Your task to perform on an android device: Open Chrome and go to settings Image 0: 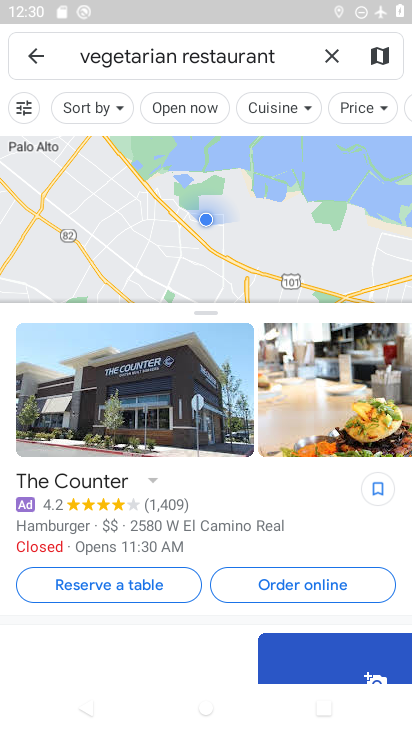
Step 0: press home button
Your task to perform on an android device: Open Chrome and go to settings Image 1: 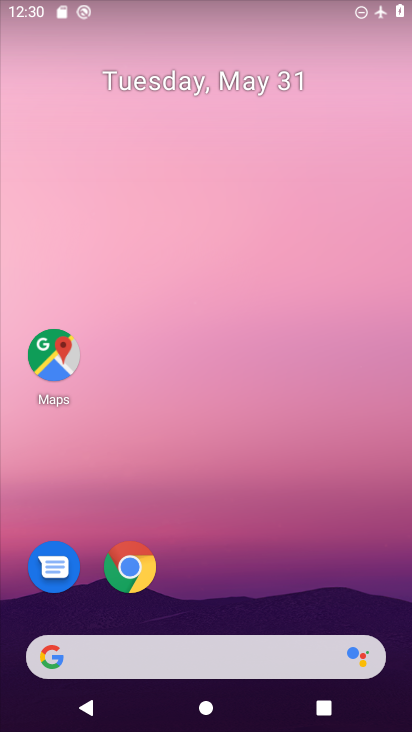
Step 1: click (110, 577)
Your task to perform on an android device: Open Chrome and go to settings Image 2: 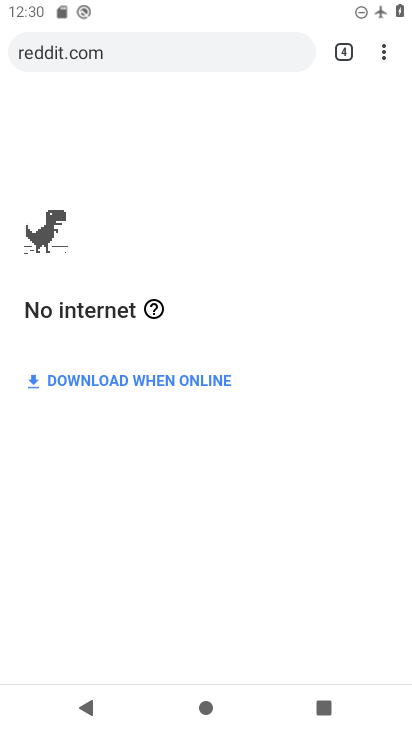
Step 2: click (389, 45)
Your task to perform on an android device: Open Chrome and go to settings Image 3: 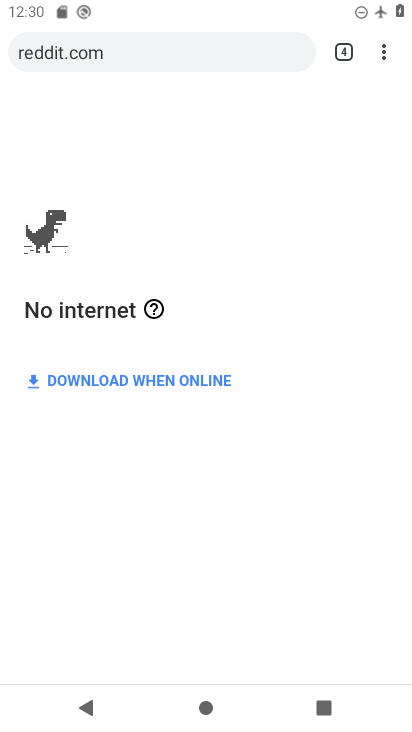
Step 3: click (372, 48)
Your task to perform on an android device: Open Chrome and go to settings Image 4: 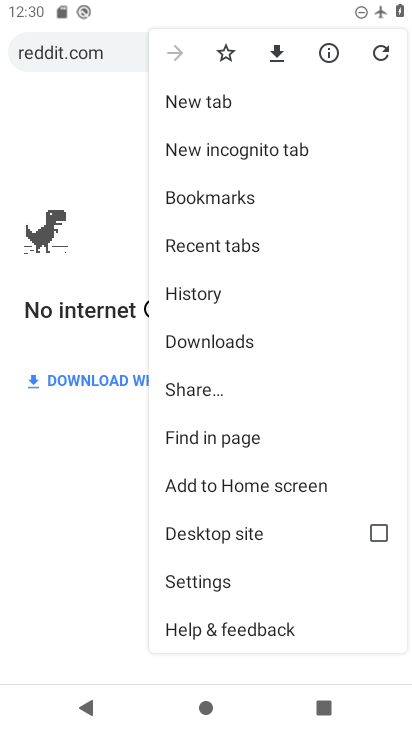
Step 4: click (272, 569)
Your task to perform on an android device: Open Chrome and go to settings Image 5: 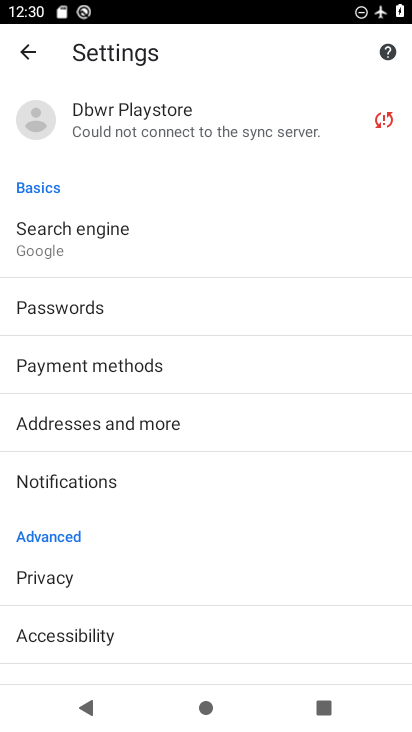
Step 5: task complete